Your task to perform on an android device: Open the web browser Image 0: 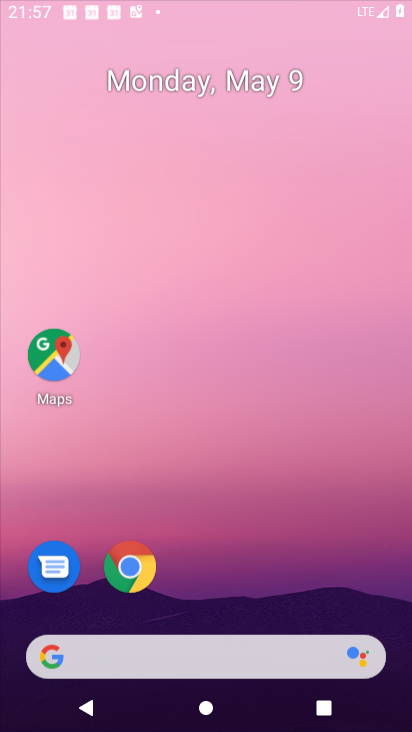
Step 0: click (271, 298)
Your task to perform on an android device: Open the web browser Image 1: 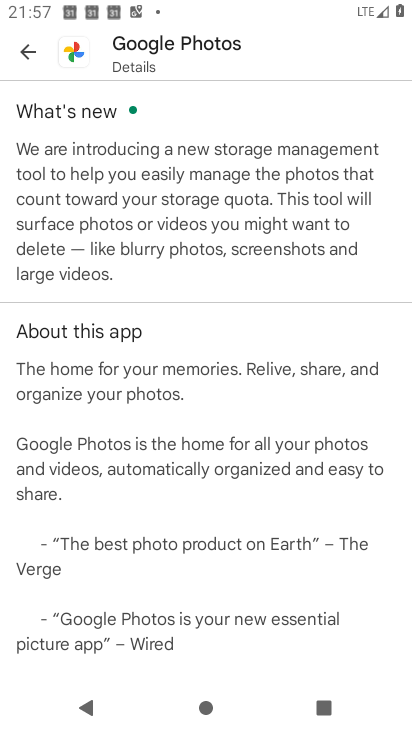
Step 1: drag from (215, 494) to (211, 101)
Your task to perform on an android device: Open the web browser Image 2: 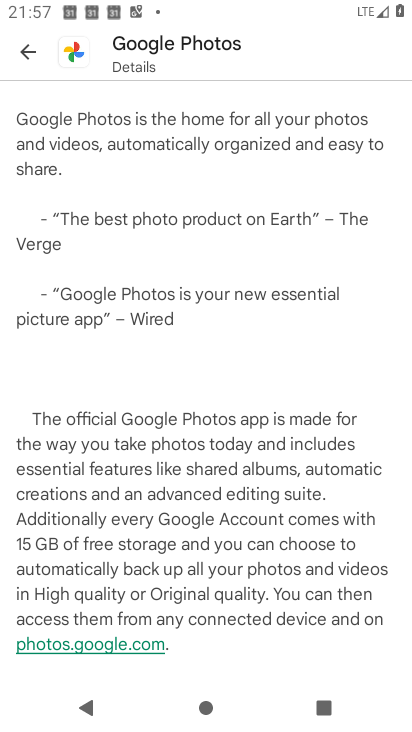
Step 2: drag from (192, 542) to (212, 111)
Your task to perform on an android device: Open the web browser Image 3: 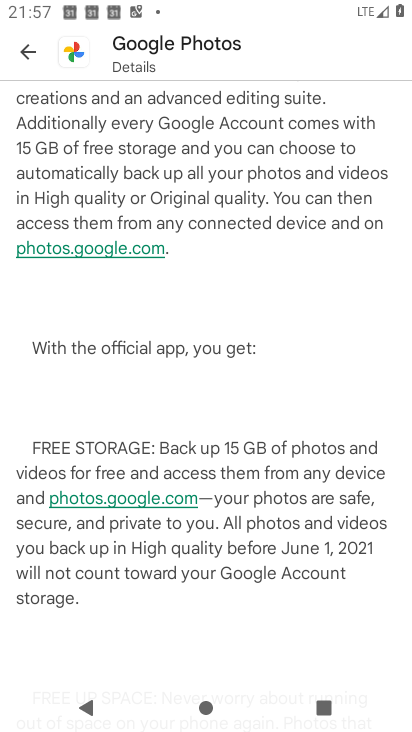
Step 3: drag from (202, 580) to (310, 80)
Your task to perform on an android device: Open the web browser Image 4: 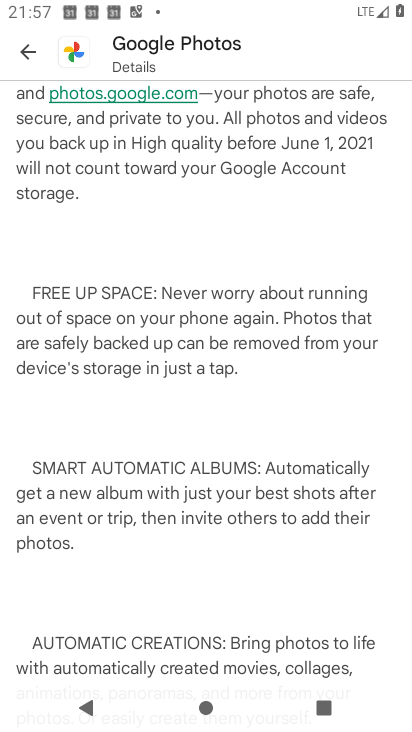
Step 4: press back button
Your task to perform on an android device: Open the web browser Image 5: 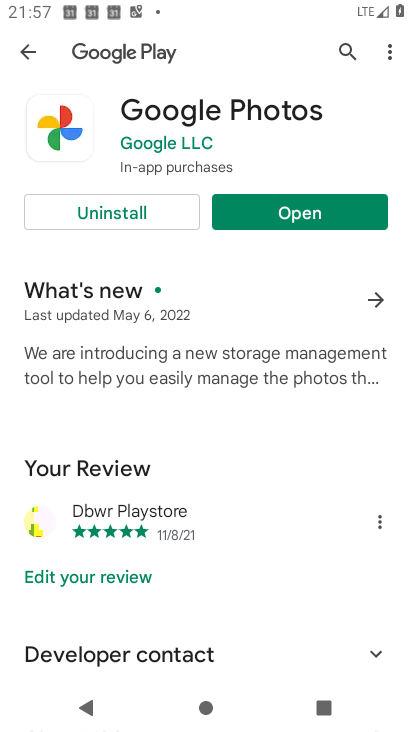
Step 5: press home button
Your task to perform on an android device: Open the web browser Image 6: 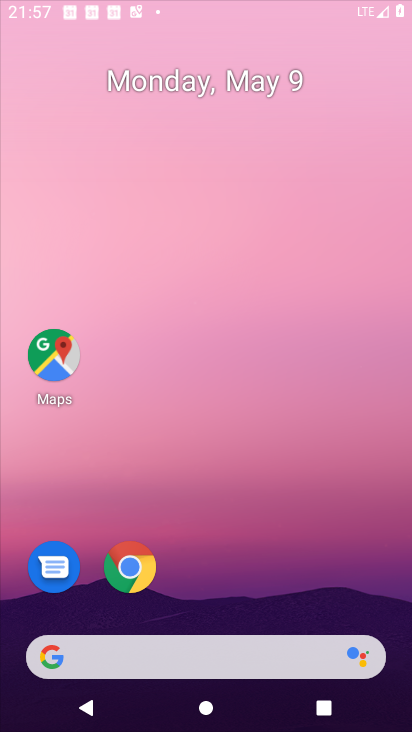
Step 6: drag from (173, 594) to (254, 102)
Your task to perform on an android device: Open the web browser Image 7: 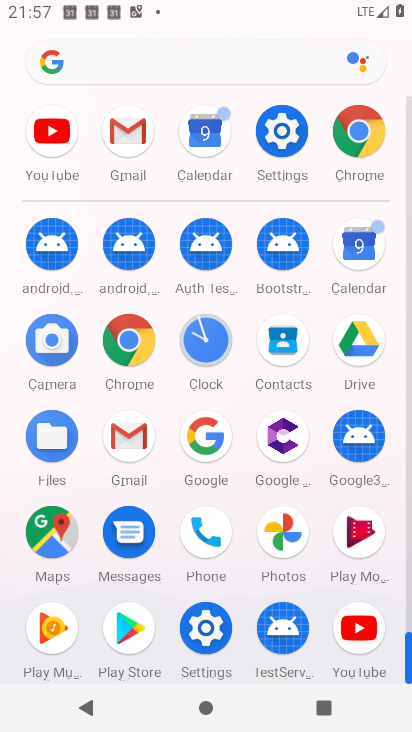
Step 7: click (353, 131)
Your task to perform on an android device: Open the web browser Image 8: 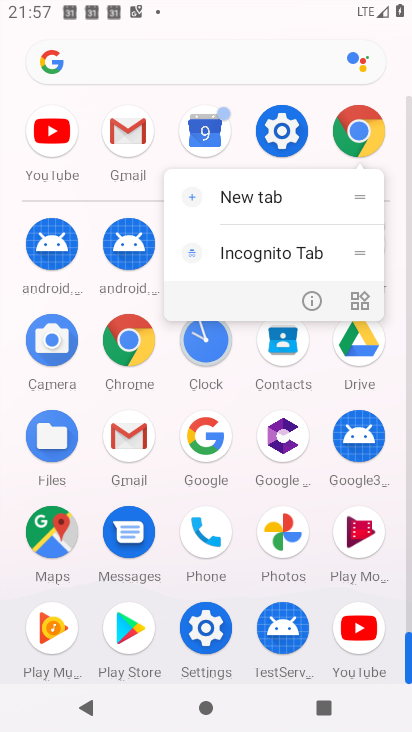
Step 8: click (311, 302)
Your task to perform on an android device: Open the web browser Image 9: 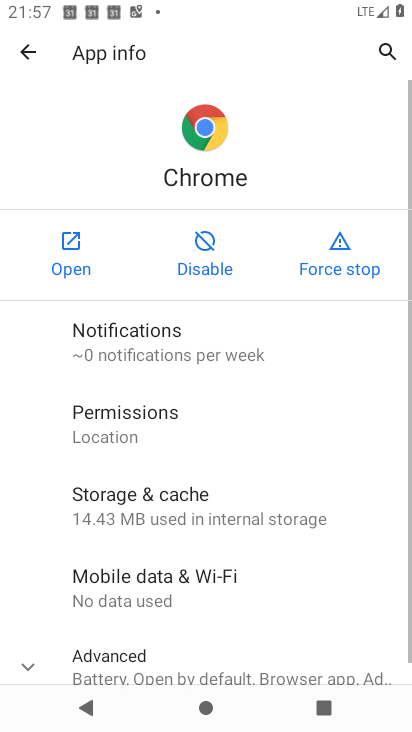
Step 9: click (64, 245)
Your task to perform on an android device: Open the web browser Image 10: 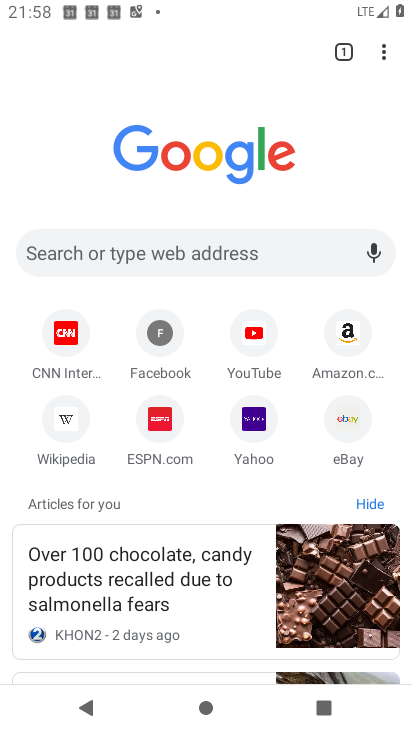
Step 10: task complete